Your task to perform on an android device: Go to accessibility settings Image 0: 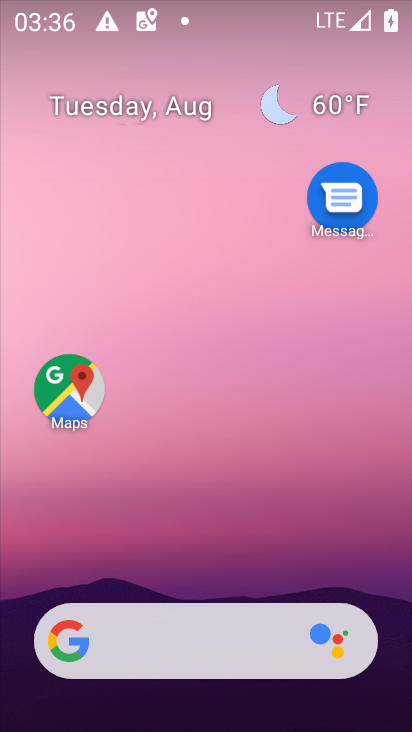
Step 0: drag from (199, 590) to (206, 123)
Your task to perform on an android device: Go to accessibility settings Image 1: 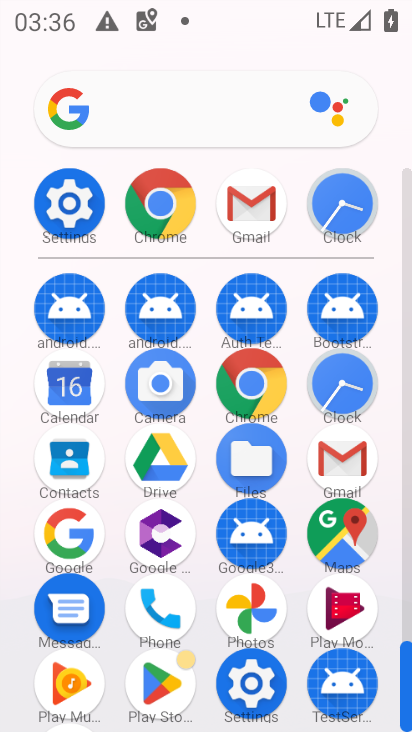
Step 1: click (75, 230)
Your task to perform on an android device: Go to accessibility settings Image 2: 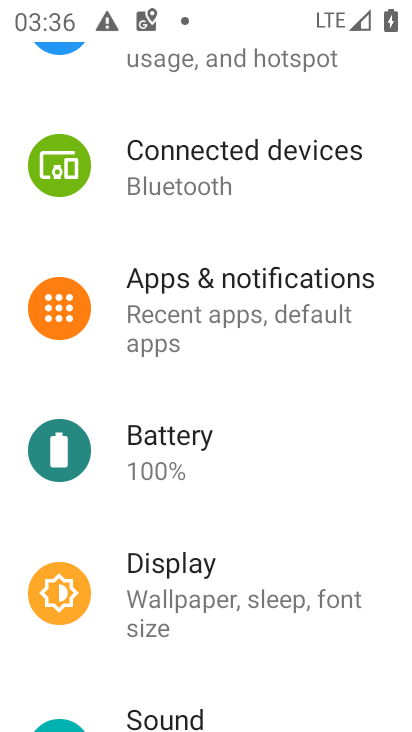
Step 2: drag from (200, 705) to (216, 211)
Your task to perform on an android device: Go to accessibility settings Image 3: 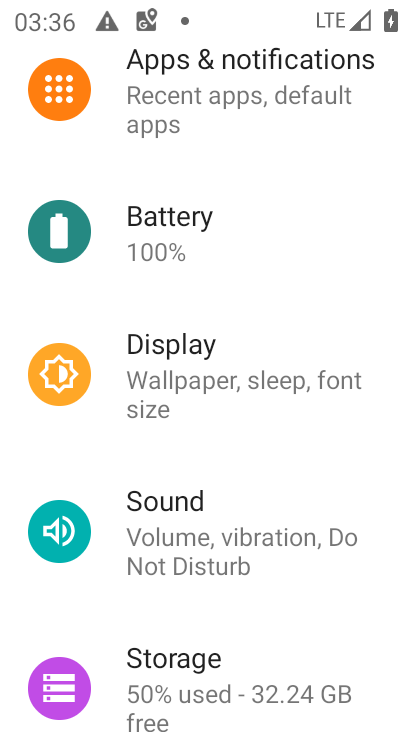
Step 3: drag from (222, 633) to (237, 172)
Your task to perform on an android device: Go to accessibility settings Image 4: 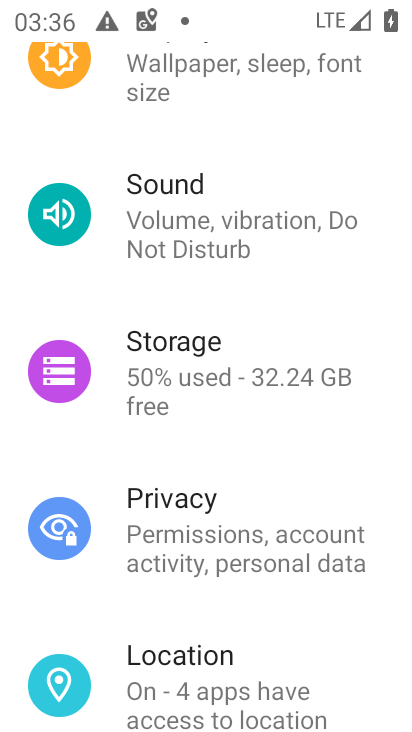
Step 4: drag from (180, 650) to (194, 117)
Your task to perform on an android device: Go to accessibility settings Image 5: 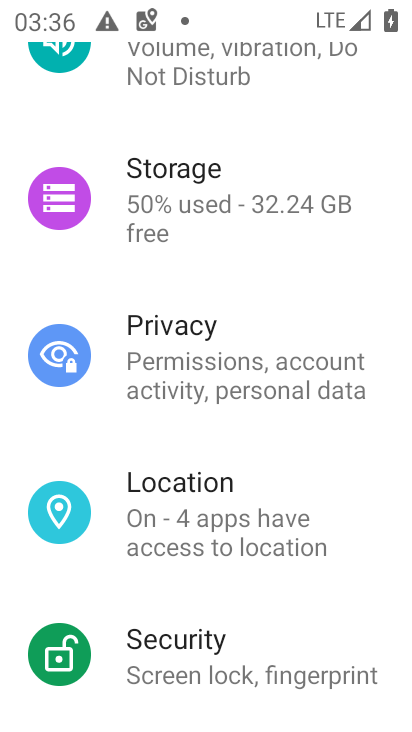
Step 5: drag from (209, 679) to (232, 269)
Your task to perform on an android device: Go to accessibility settings Image 6: 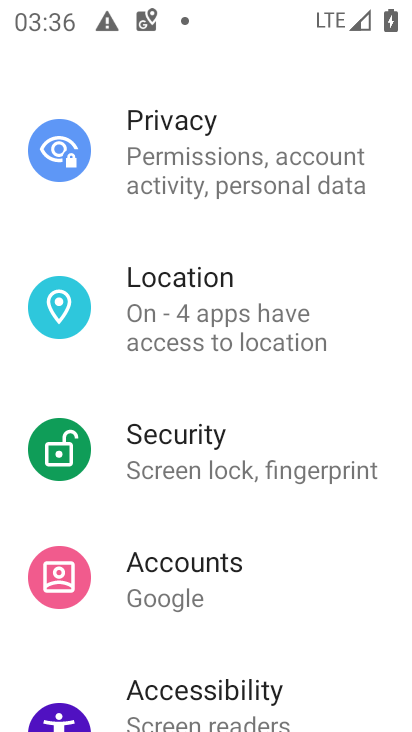
Step 6: click (215, 673)
Your task to perform on an android device: Go to accessibility settings Image 7: 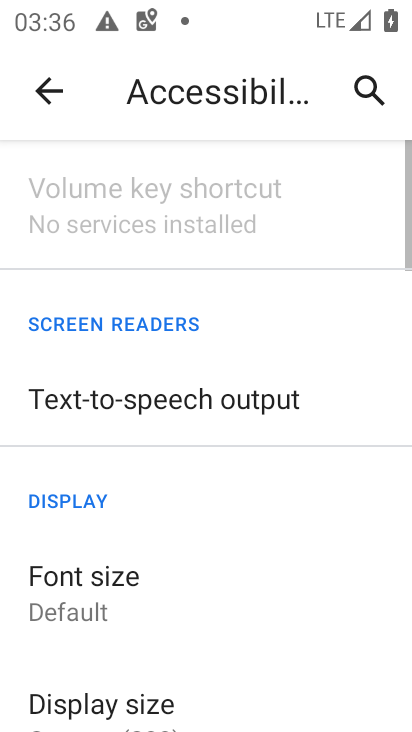
Step 7: task complete